Your task to perform on an android device: Show me the alarms in the clock app Image 0: 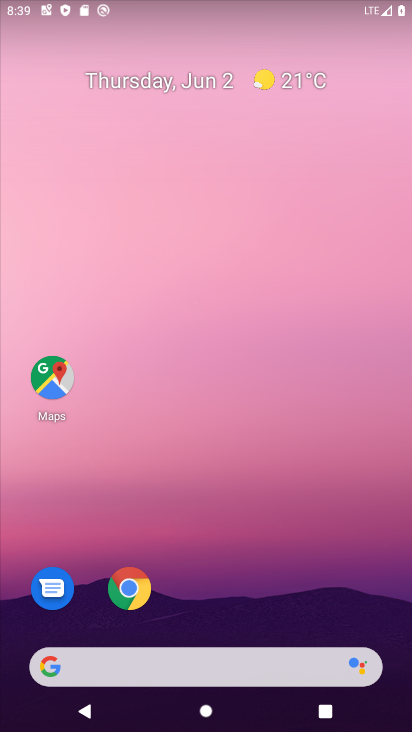
Step 0: drag from (213, 591) to (229, 107)
Your task to perform on an android device: Show me the alarms in the clock app Image 1: 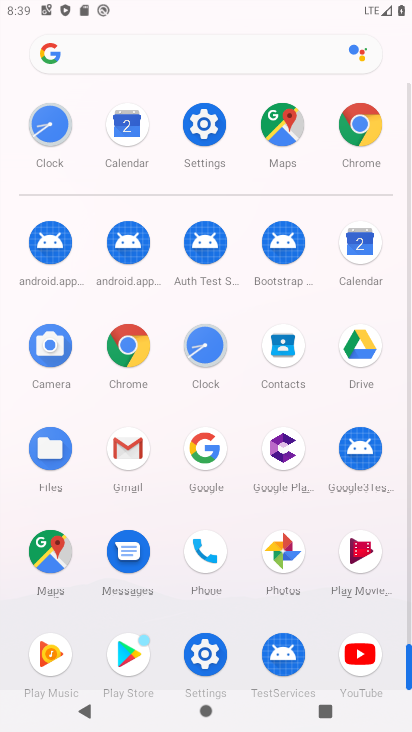
Step 1: click (213, 358)
Your task to perform on an android device: Show me the alarms in the clock app Image 2: 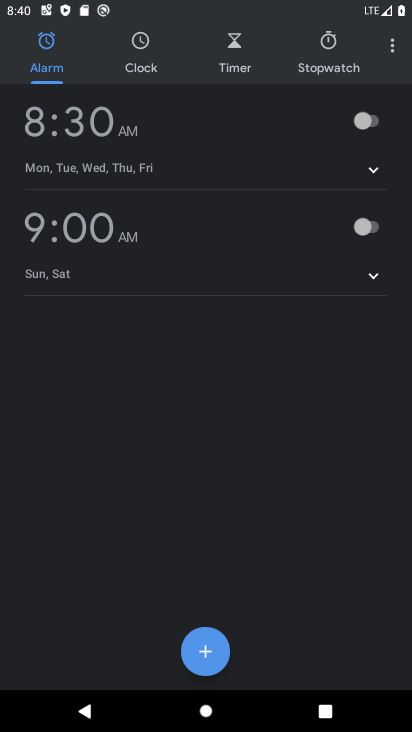
Step 2: click (49, 55)
Your task to perform on an android device: Show me the alarms in the clock app Image 3: 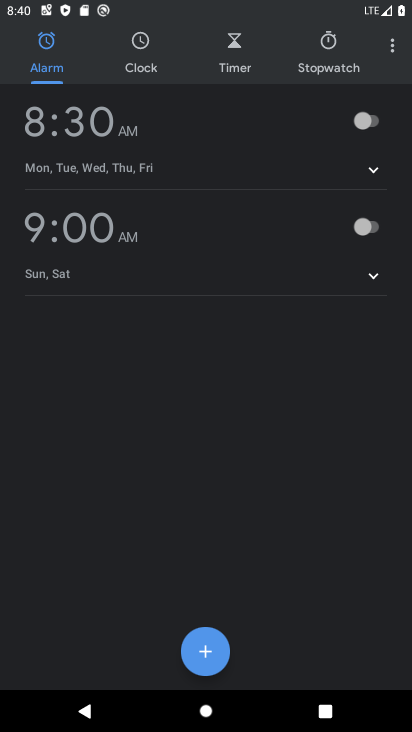
Step 3: task complete